Your task to perform on an android device: check data usage Image 0: 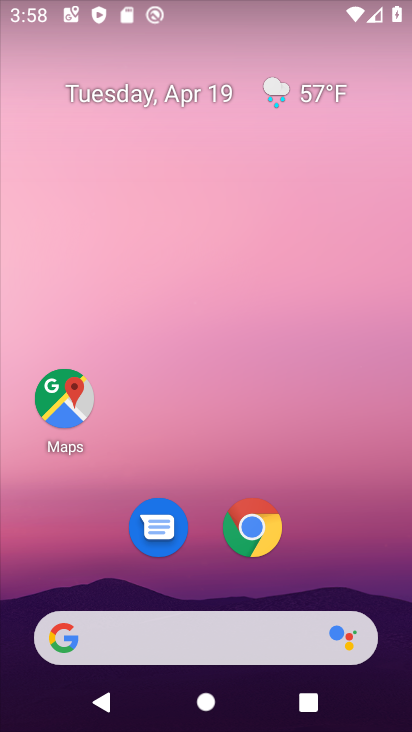
Step 0: drag from (317, 550) to (240, 55)
Your task to perform on an android device: check data usage Image 1: 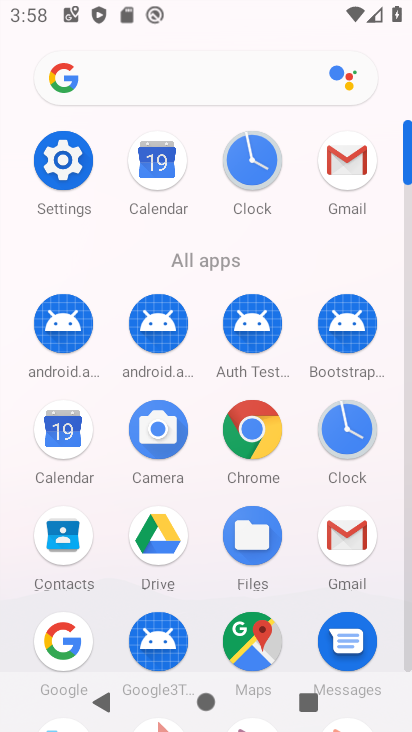
Step 1: click (405, 657)
Your task to perform on an android device: check data usage Image 2: 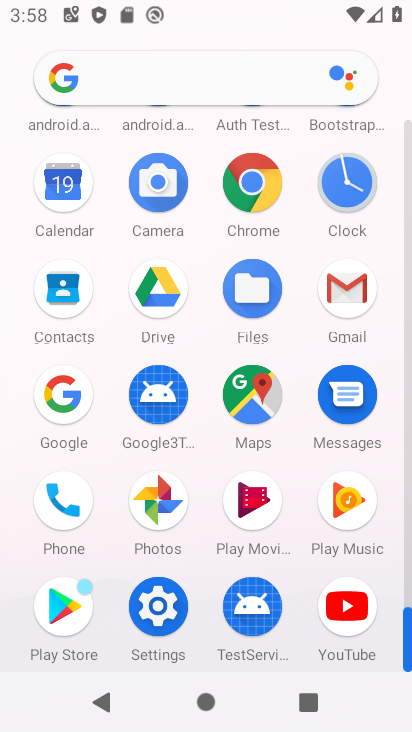
Step 2: click (151, 607)
Your task to perform on an android device: check data usage Image 3: 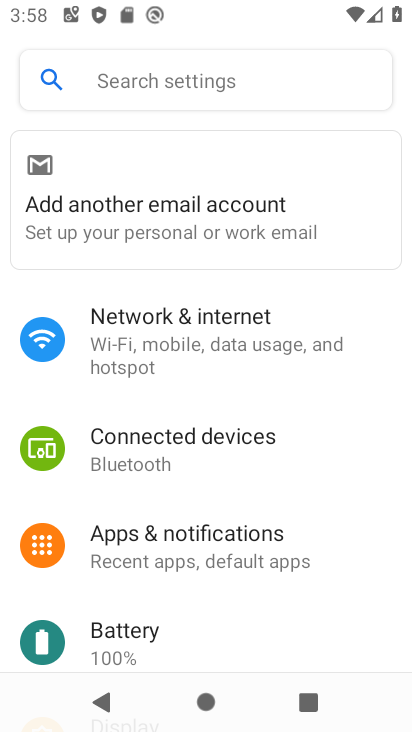
Step 3: click (157, 330)
Your task to perform on an android device: check data usage Image 4: 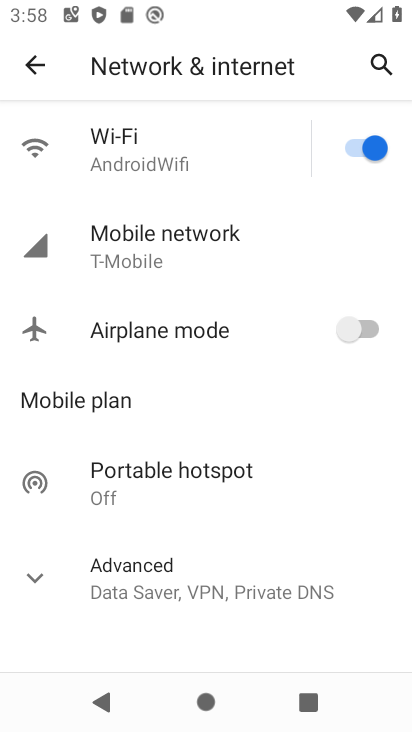
Step 4: click (141, 236)
Your task to perform on an android device: check data usage Image 5: 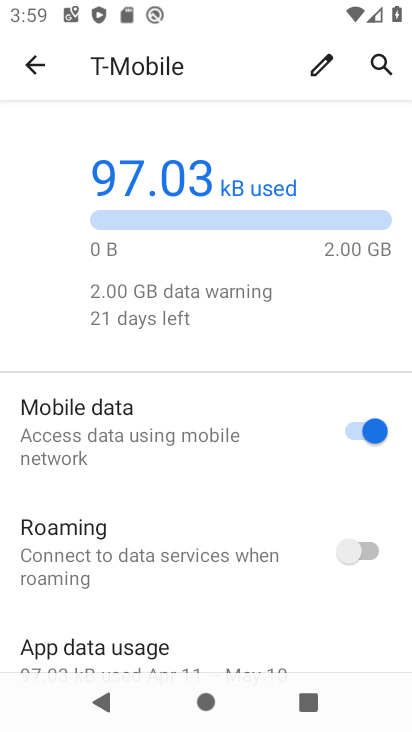
Step 5: task complete